Your task to perform on an android device: all mails in gmail Image 0: 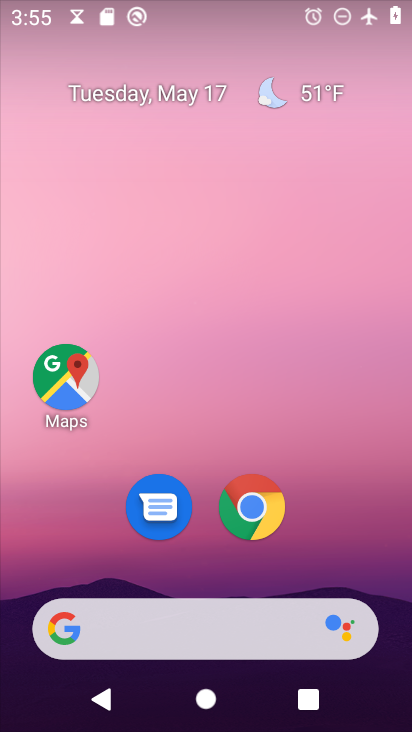
Step 0: drag from (205, 580) to (172, 147)
Your task to perform on an android device: all mails in gmail Image 1: 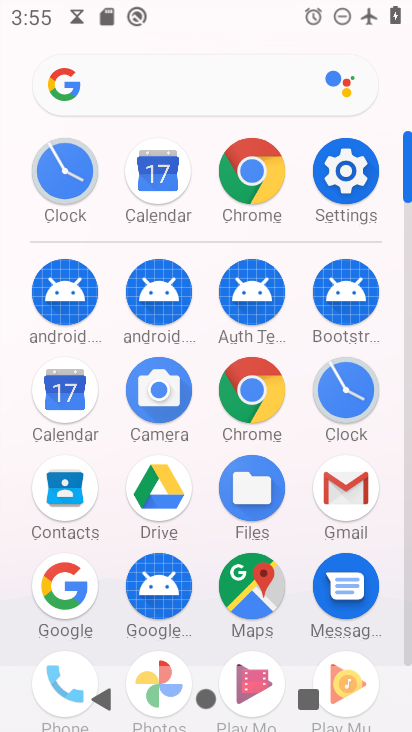
Step 1: click (362, 492)
Your task to perform on an android device: all mails in gmail Image 2: 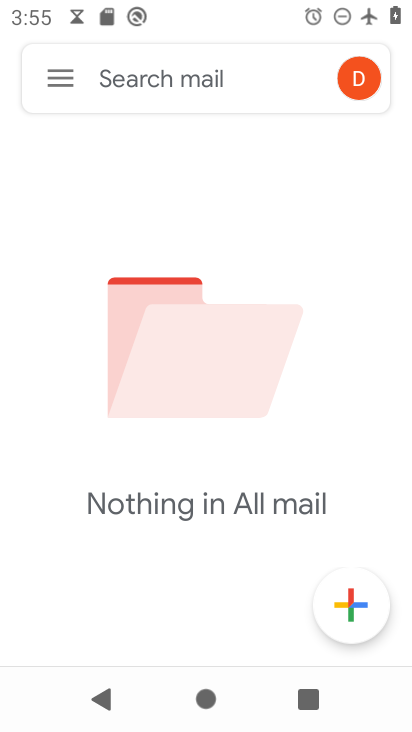
Step 2: click (64, 76)
Your task to perform on an android device: all mails in gmail Image 3: 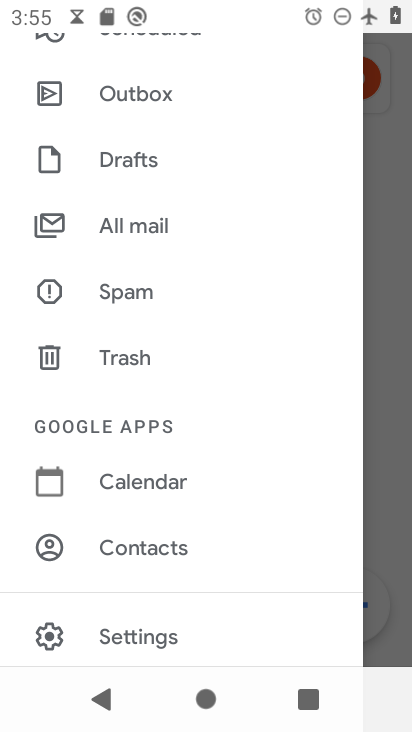
Step 3: click (174, 229)
Your task to perform on an android device: all mails in gmail Image 4: 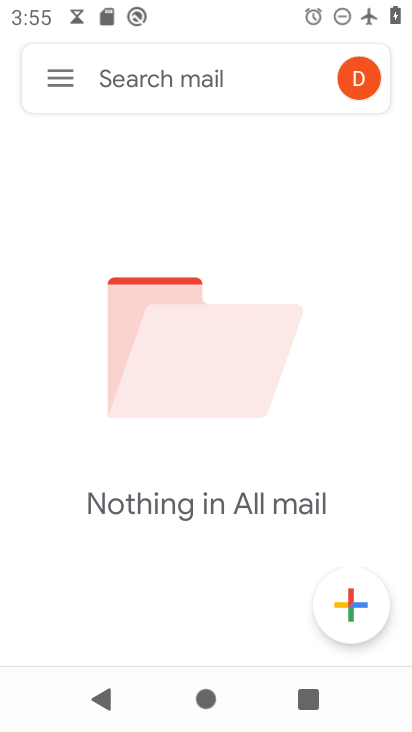
Step 4: task complete